Your task to perform on an android device: Open Android settings Image 0: 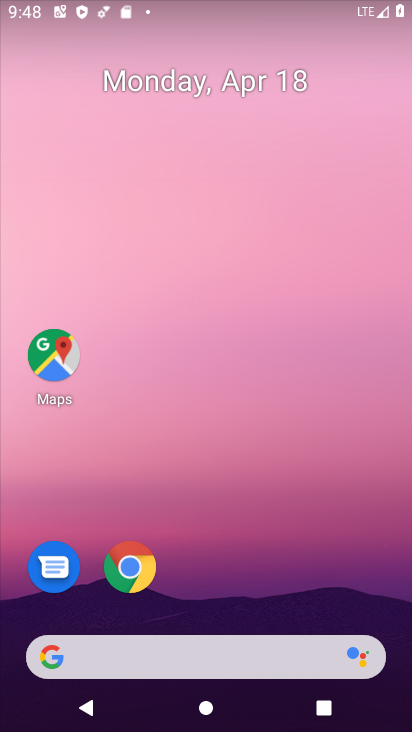
Step 0: drag from (358, 511) to (361, 82)
Your task to perform on an android device: Open Android settings Image 1: 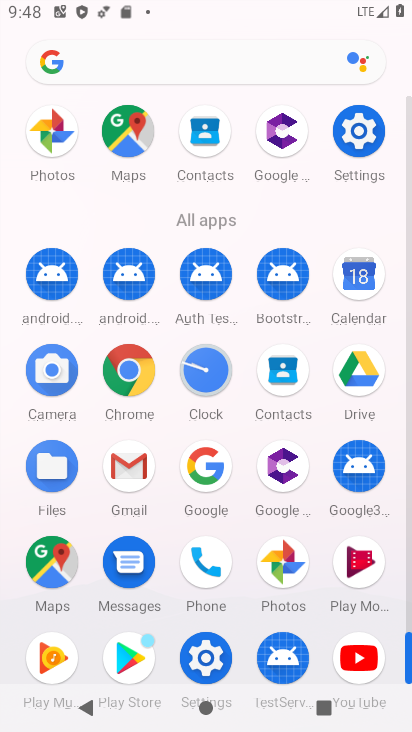
Step 1: click (356, 135)
Your task to perform on an android device: Open Android settings Image 2: 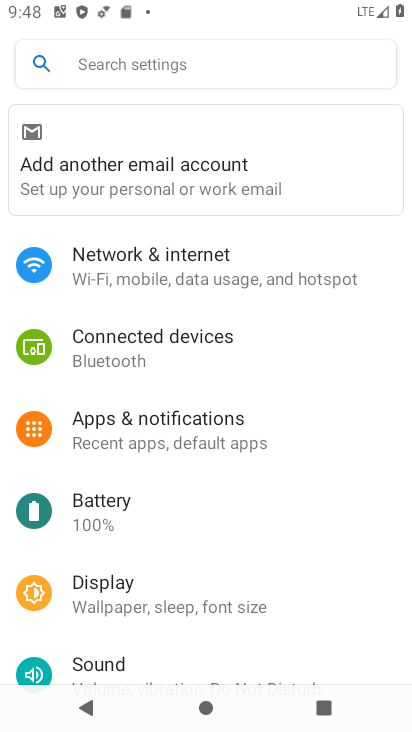
Step 2: drag from (301, 473) to (340, 220)
Your task to perform on an android device: Open Android settings Image 3: 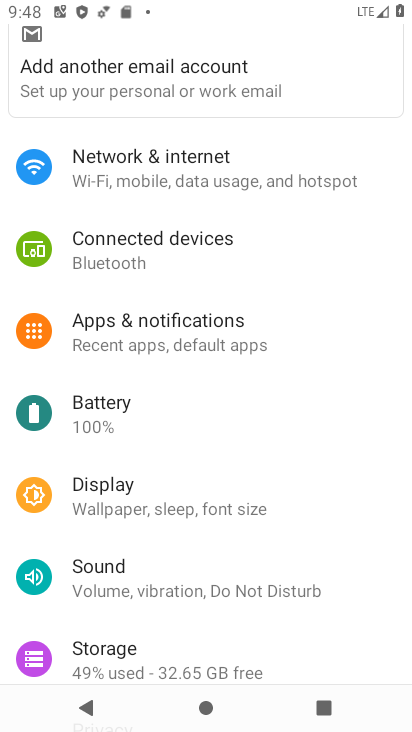
Step 3: drag from (328, 610) to (349, 199)
Your task to perform on an android device: Open Android settings Image 4: 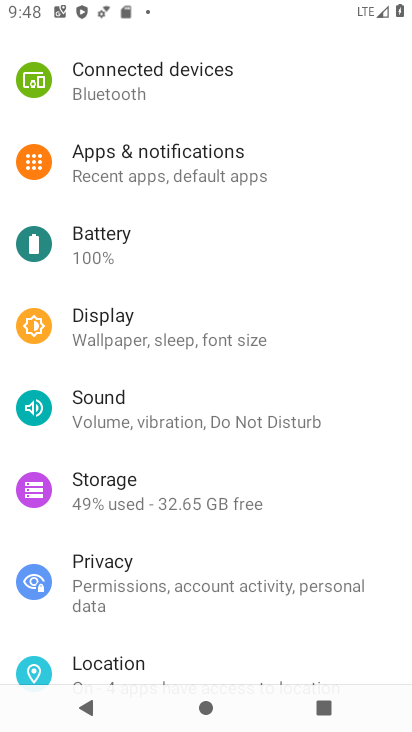
Step 4: drag from (354, 622) to (363, 255)
Your task to perform on an android device: Open Android settings Image 5: 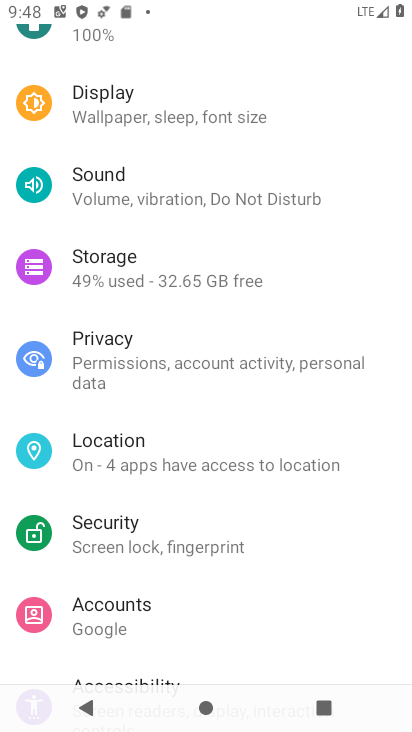
Step 5: drag from (362, 598) to (378, 211)
Your task to perform on an android device: Open Android settings Image 6: 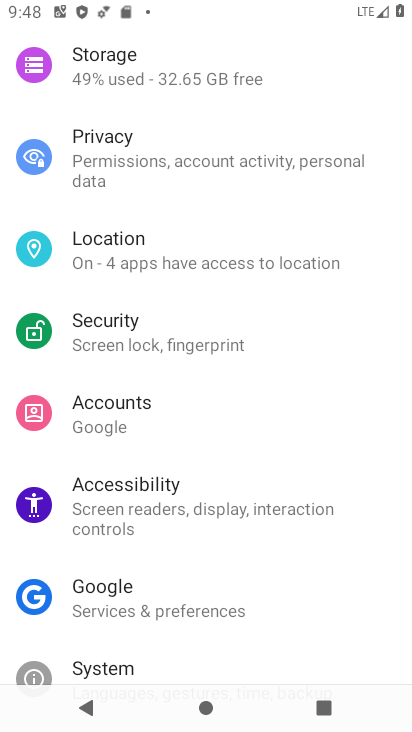
Step 6: drag from (329, 625) to (355, 194)
Your task to perform on an android device: Open Android settings Image 7: 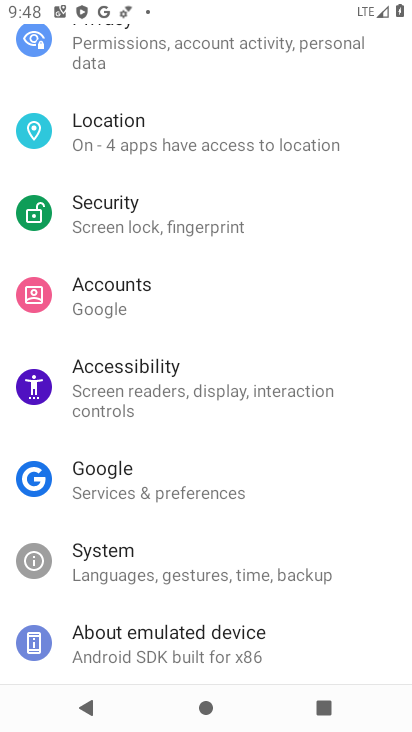
Step 7: click (166, 646)
Your task to perform on an android device: Open Android settings Image 8: 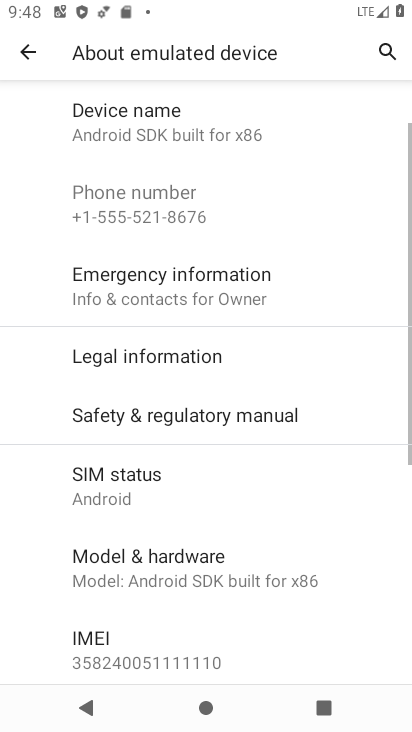
Step 8: task complete